Your task to perform on an android device: Show the shopping cart on newegg.com. Image 0: 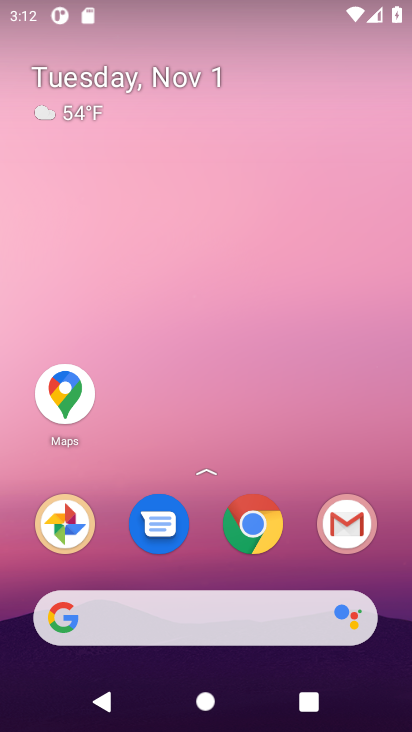
Step 0: click (253, 525)
Your task to perform on an android device: Show the shopping cart on newegg.com. Image 1: 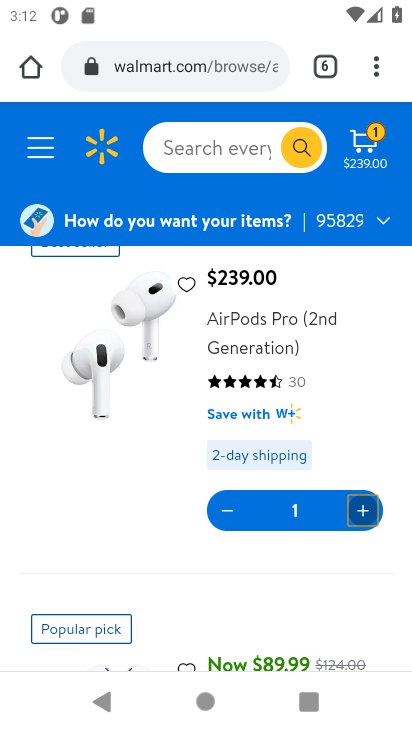
Step 1: click (179, 43)
Your task to perform on an android device: Show the shopping cart on newegg.com. Image 2: 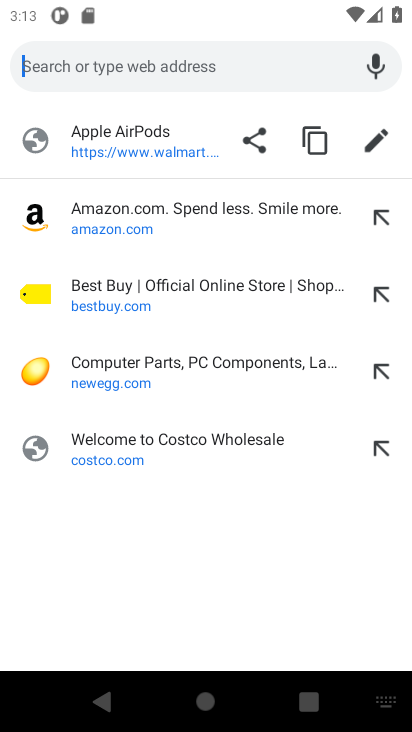
Step 2: type "newegg.com."
Your task to perform on an android device: Show the shopping cart on newegg.com. Image 3: 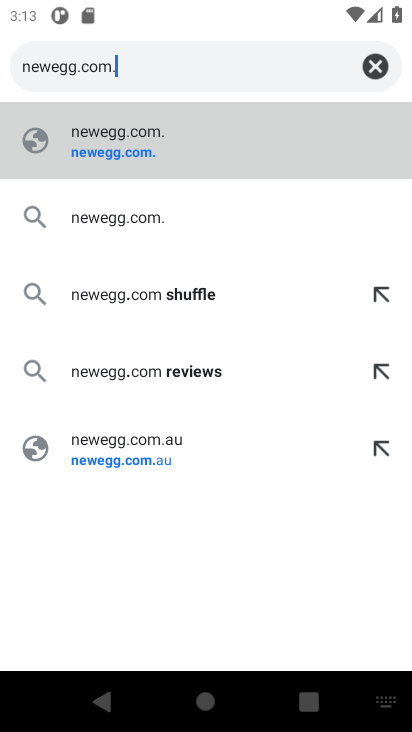
Step 3: click (100, 134)
Your task to perform on an android device: Show the shopping cart on newegg.com. Image 4: 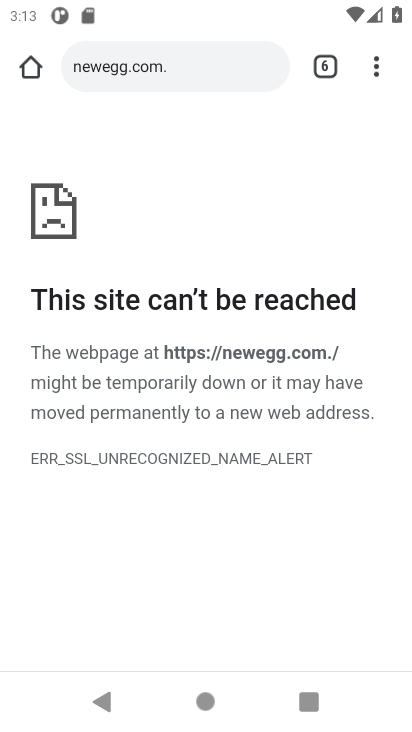
Step 4: click (167, 54)
Your task to perform on an android device: Show the shopping cart on newegg.com. Image 5: 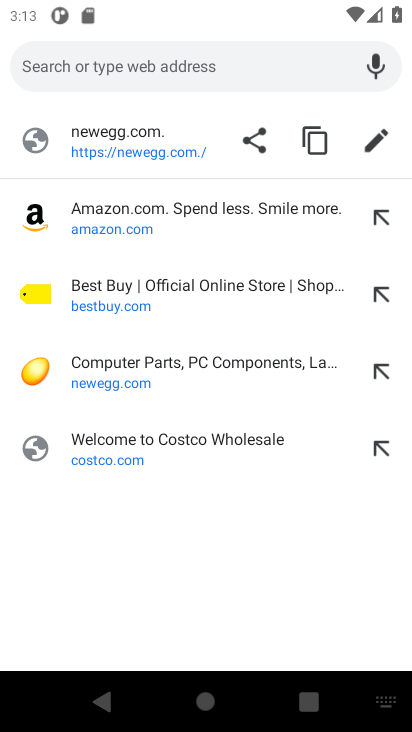
Step 5: type "newegg.com"
Your task to perform on an android device: Show the shopping cart on newegg.com. Image 6: 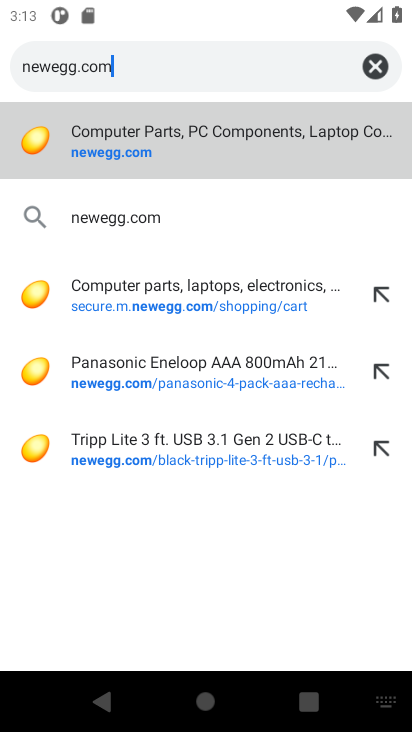
Step 6: click (90, 141)
Your task to perform on an android device: Show the shopping cart on newegg.com. Image 7: 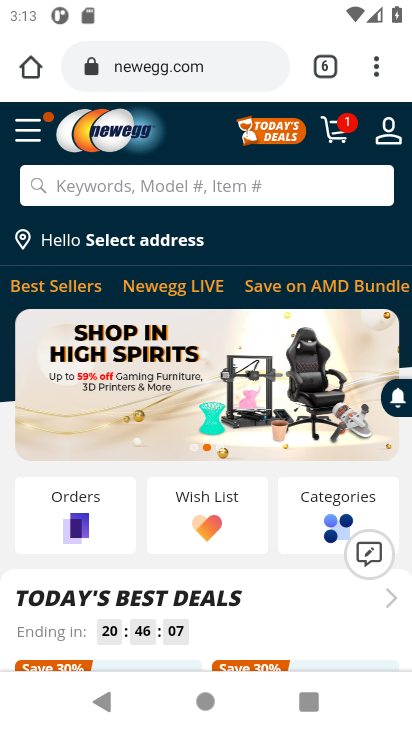
Step 7: click (94, 177)
Your task to perform on an android device: Show the shopping cart on newegg.com. Image 8: 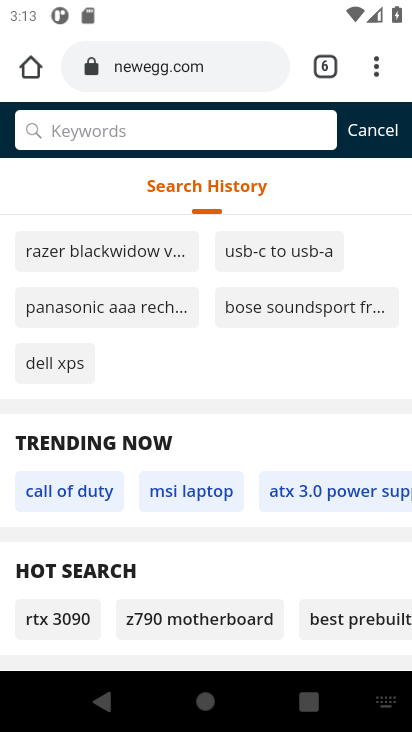
Step 8: click (364, 130)
Your task to perform on an android device: Show the shopping cart on newegg.com. Image 9: 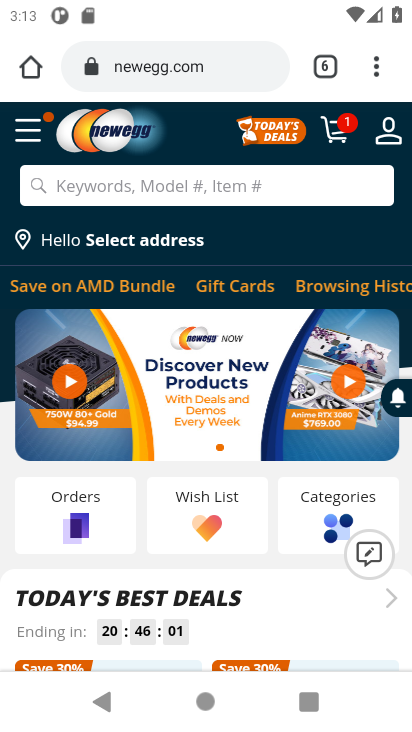
Step 9: click (332, 126)
Your task to perform on an android device: Show the shopping cart on newegg.com. Image 10: 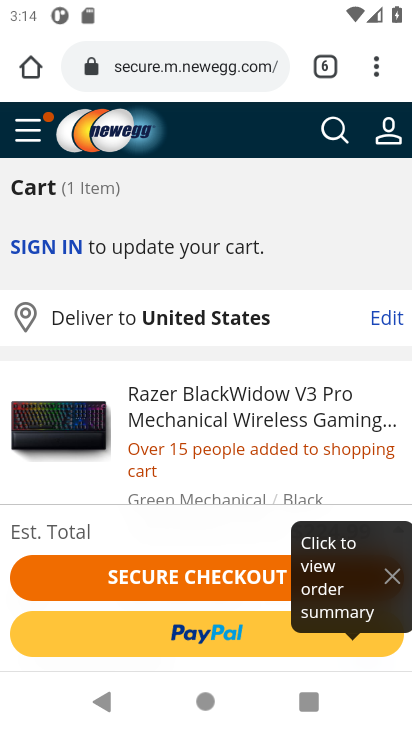
Step 10: task complete